Your task to perform on an android device: What is the news today? Image 0: 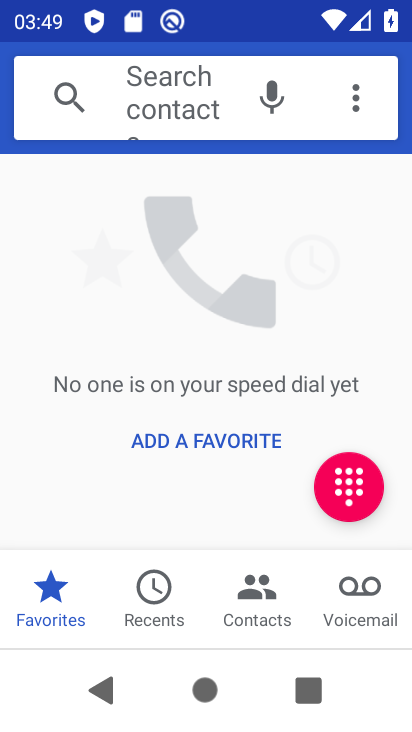
Step 0: drag from (257, 16) to (195, 566)
Your task to perform on an android device: What is the news today? Image 1: 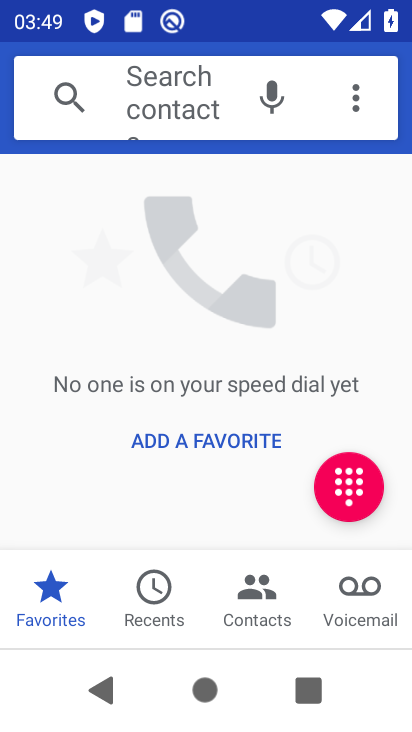
Step 1: press home button
Your task to perform on an android device: What is the news today? Image 2: 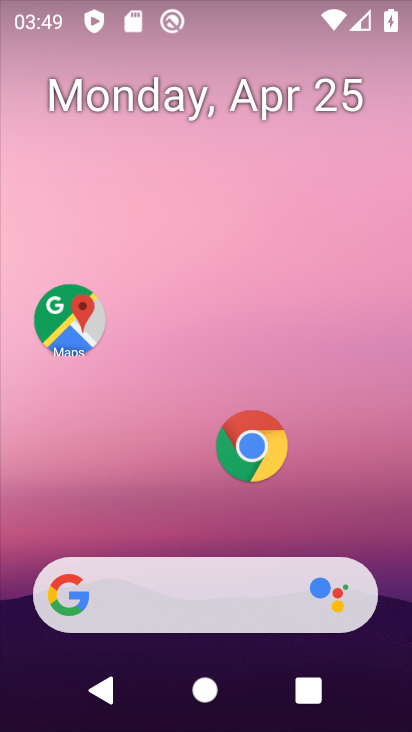
Step 2: click (226, 597)
Your task to perform on an android device: What is the news today? Image 3: 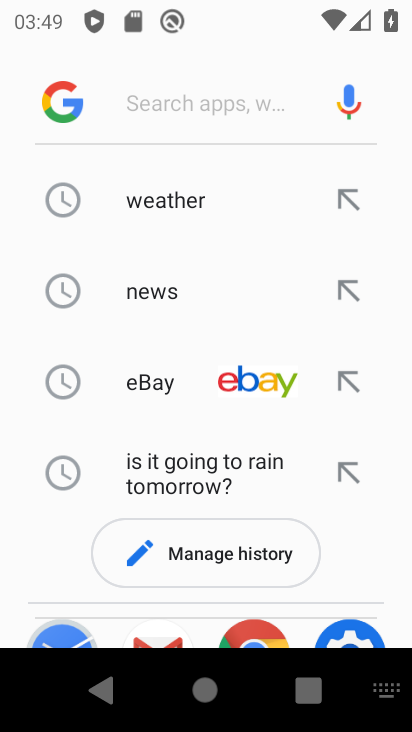
Step 3: click (57, 110)
Your task to perform on an android device: What is the news today? Image 4: 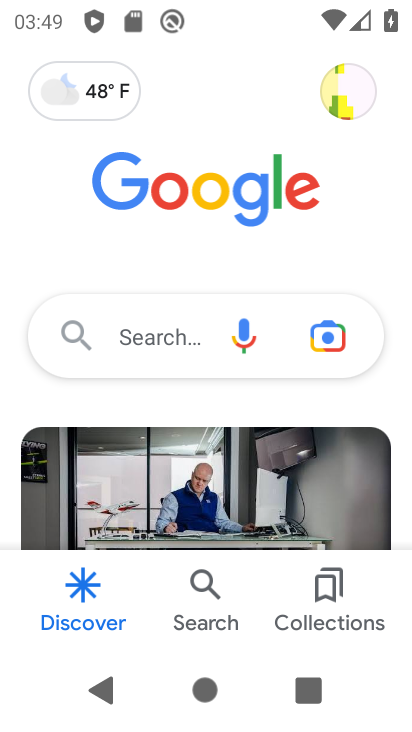
Step 4: task complete